Your task to perform on an android device: turn on translation in the chrome app Image 0: 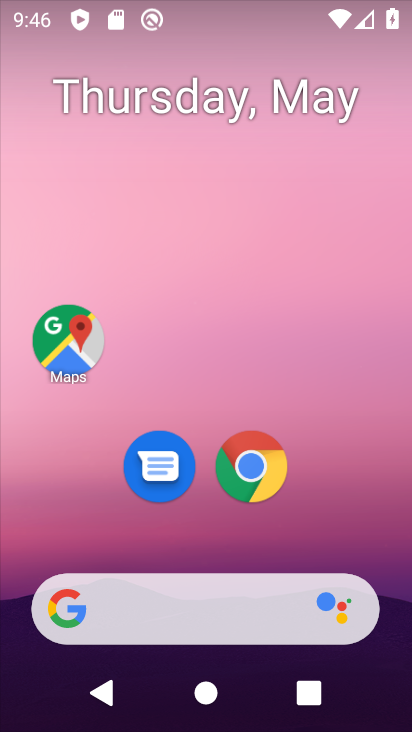
Step 0: drag from (310, 514) to (337, 176)
Your task to perform on an android device: turn on translation in the chrome app Image 1: 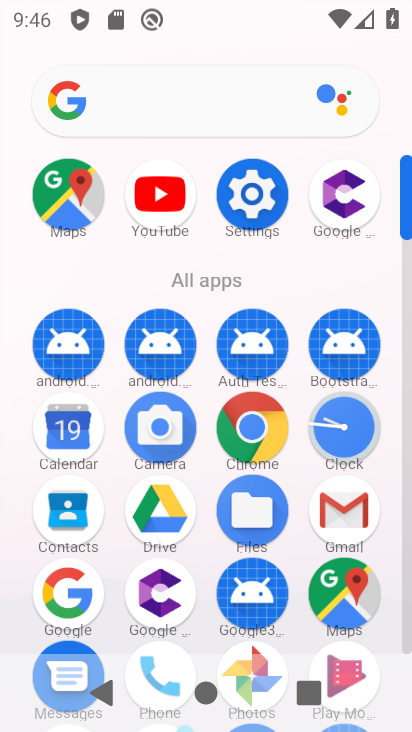
Step 1: click (255, 419)
Your task to perform on an android device: turn on translation in the chrome app Image 2: 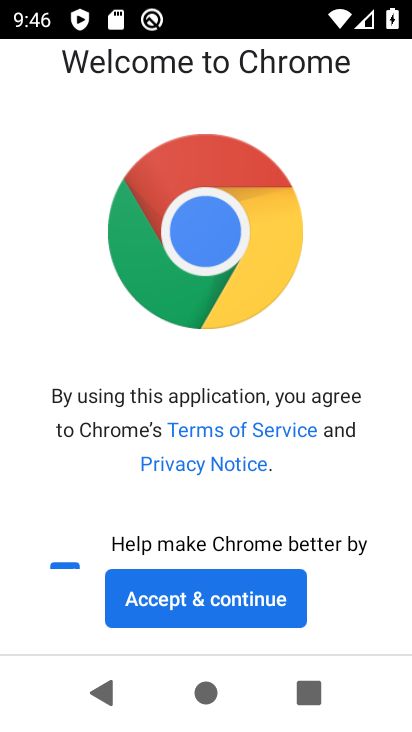
Step 2: click (239, 584)
Your task to perform on an android device: turn on translation in the chrome app Image 3: 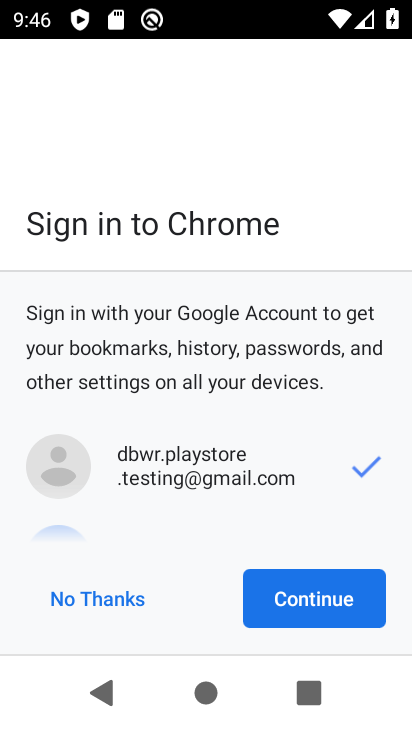
Step 3: click (335, 604)
Your task to perform on an android device: turn on translation in the chrome app Image 4: 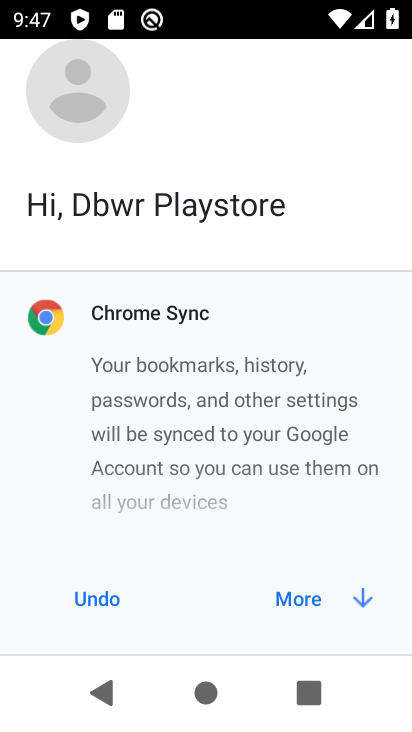
Step 4: click (270, 594)
Your task to perform on an android device: turn on translation in the chrome app Image 5: 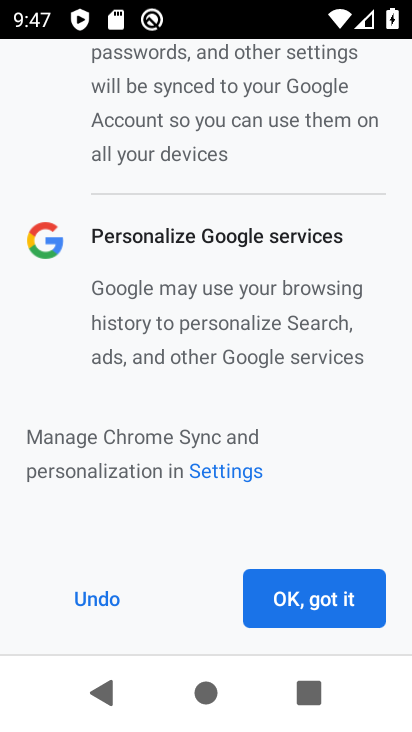
Step 5: click (270, 594)
Your task to perform on an android device: turn on translation in the chrome app Image 6: 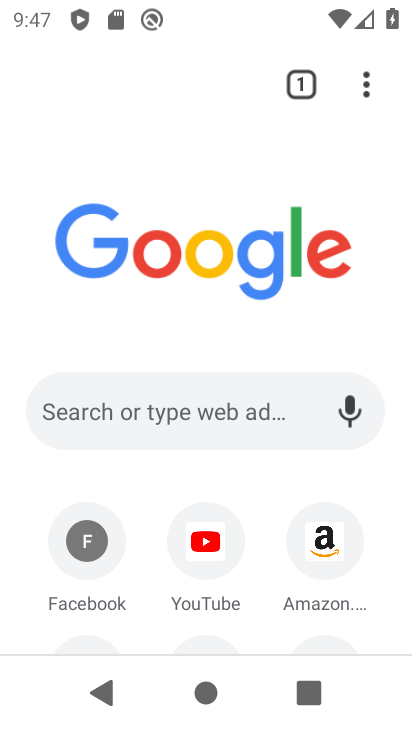
Step 6: click (385, 68)
Your task to perform on an android device: turn on translation in the chrome app Image 7: 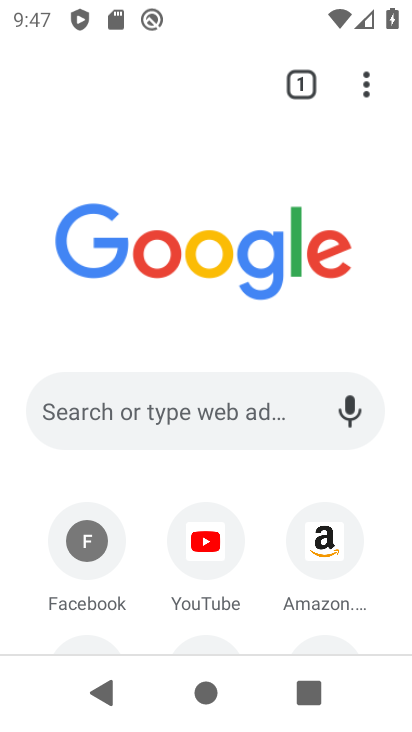
Step 7: click (379, 77)
Your task to perform on an android device: turn on translation in the chrome app Image 8: 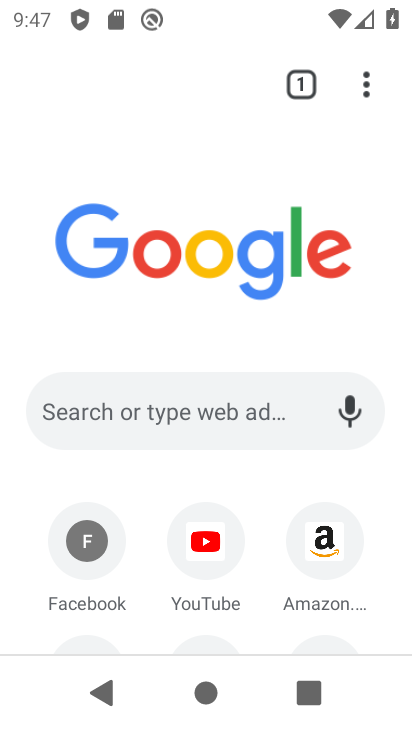
Step 8: click (361, 77)
Your task to perform on an android device: turn on translation in the chrome app Image 9: 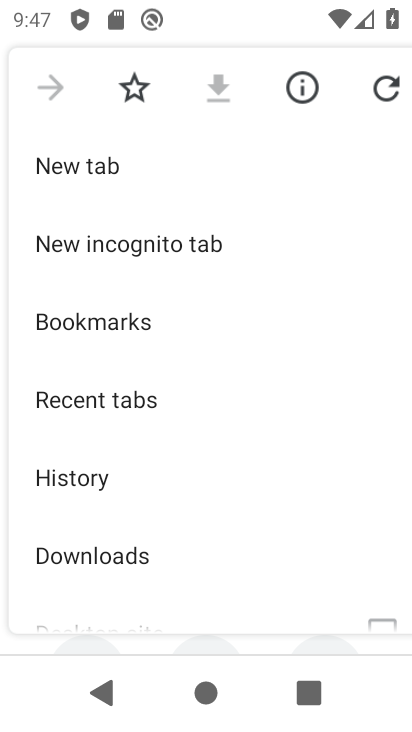
Step 9: drag from (229, 532) to (228, 261)
Your task to perform on an android device: turn on translation in the chrome app Image 10: 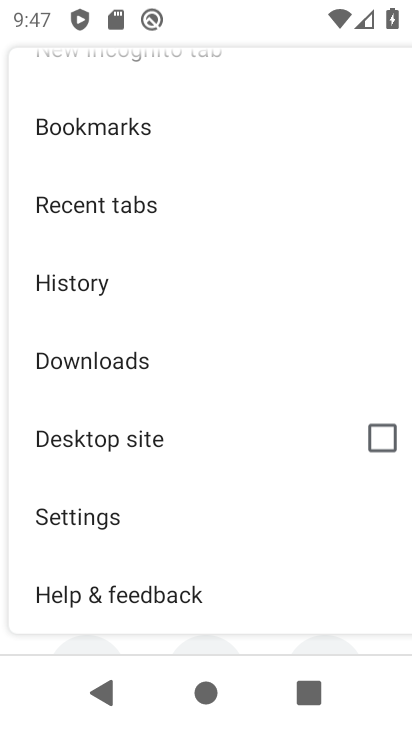
Step 10: click (160, 509)
Your task to perform on an android device: turn on translation in the chrome app Image 11: 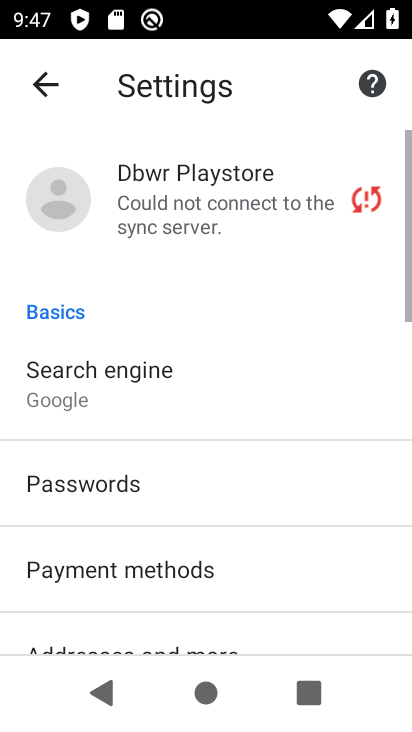
Step 11: drag from (174, 557) to (206, 206)
Your task to perform on an android device: turn on translation in the chrome app Image 12: 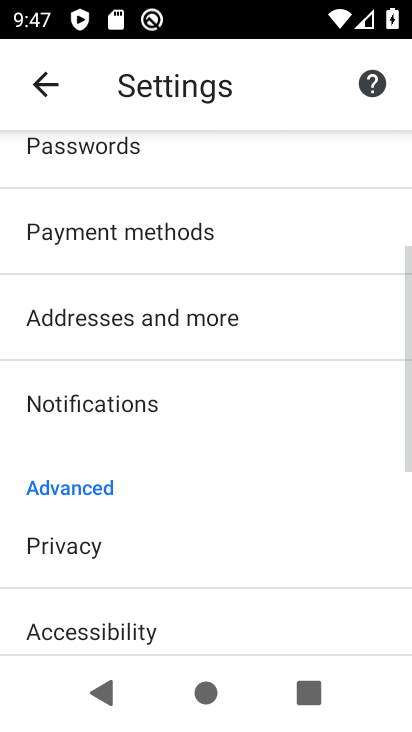
Step 12: drag from (176, 553) to (213, 269)
Your task to perform on an android device: turn on translation in the chrome app Image 13: 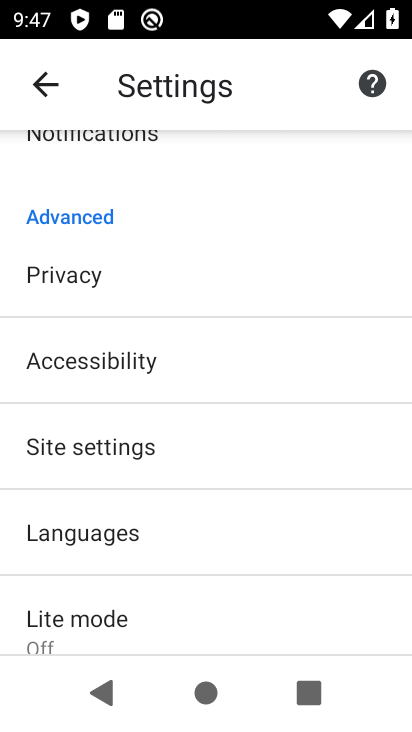
Step 13: click (191, 541)
Your task to perform on an android device: turn on translation in the chrome app Image 14: 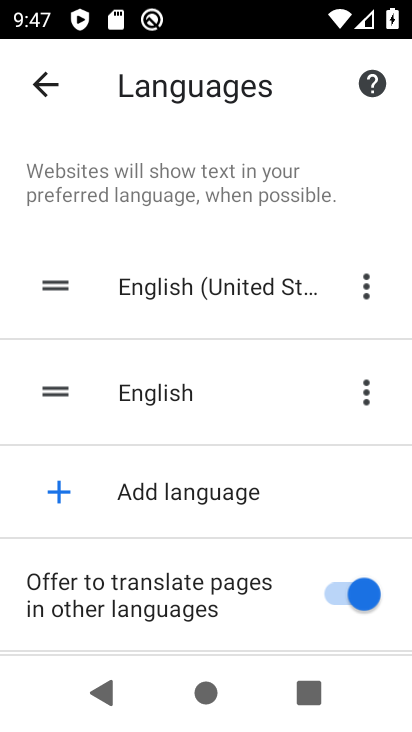
Step 14: task complete